Your task to perform on an android device: Go to Google maps Image 0: 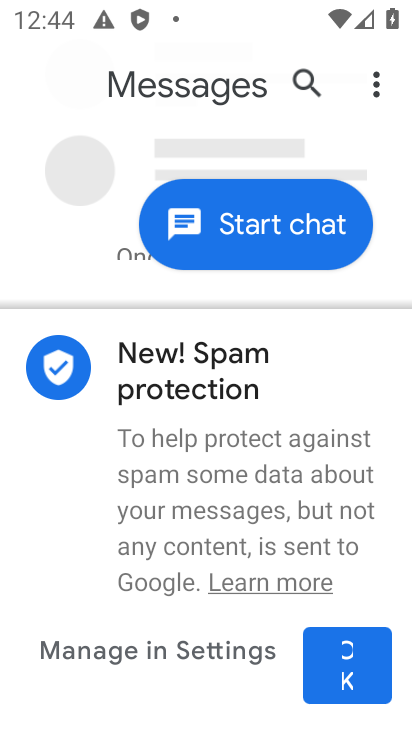
Step 0: press home button
Your task to perform on an android device: Go to Google maps Image 1: 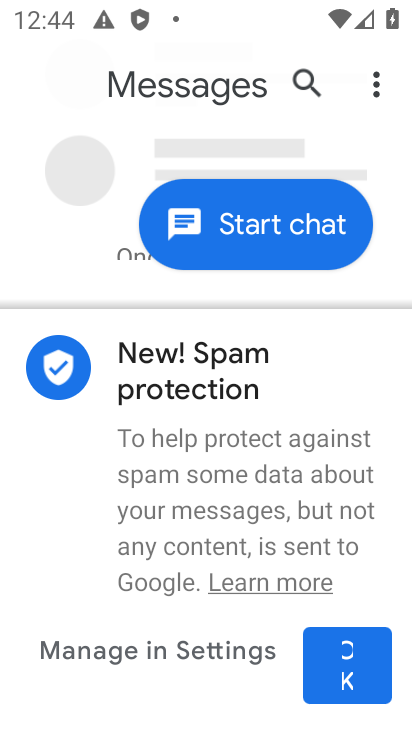
Step 1: press home button
Your task to perform on an android device: Go to Google maps Image 2: 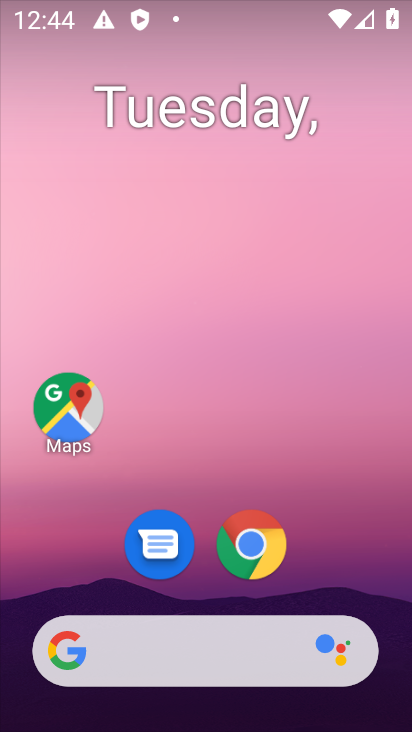
Step 2: drag from (334, 525) to (294, 8)
Your task to perform on an android device: Go to Google maps Image 3: 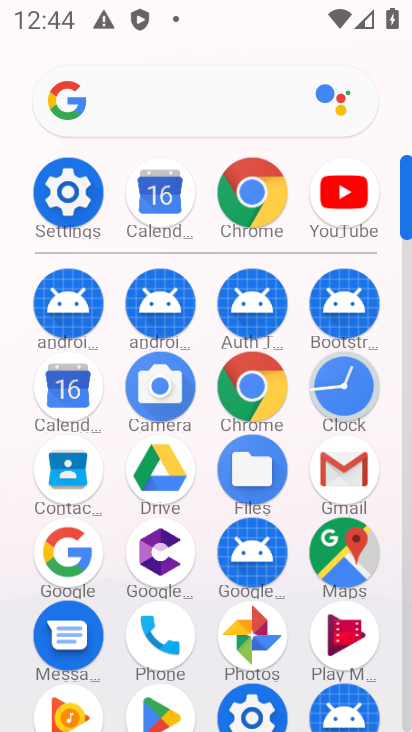
Step 3: click (336, 563)
Your task to perform on an android device: Go to Google maps Image 4: 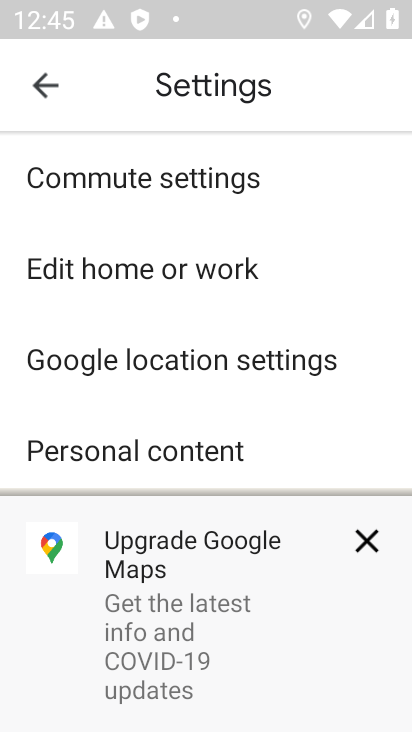
Step 4: task complete